Your task to perform on an android device: Open the phone app and click the voicemail tab. Image 0: 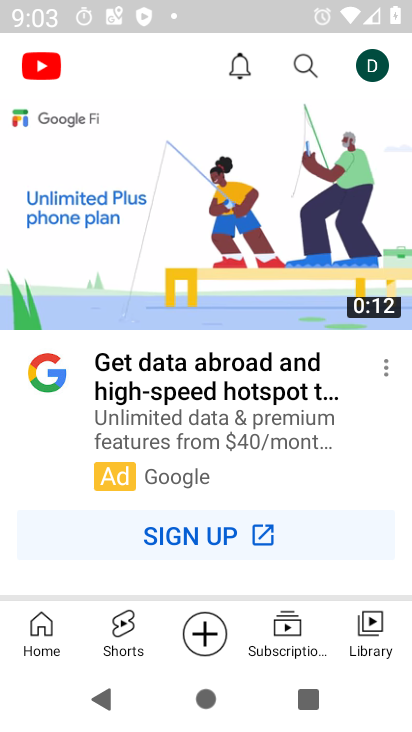
Step 0: press back button
Your task to perform on an android device: Open the phone app and click the voicemail tab. Image 1: 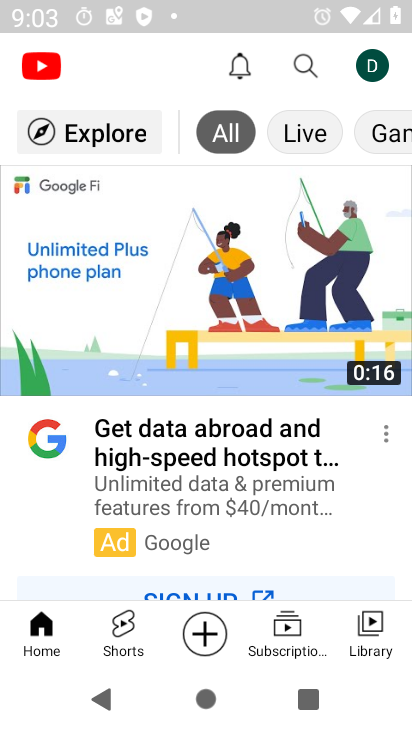
Step 1: press back button
Your task to perform on an android device: Open the phone app and click the voicemail tab. Image 2: 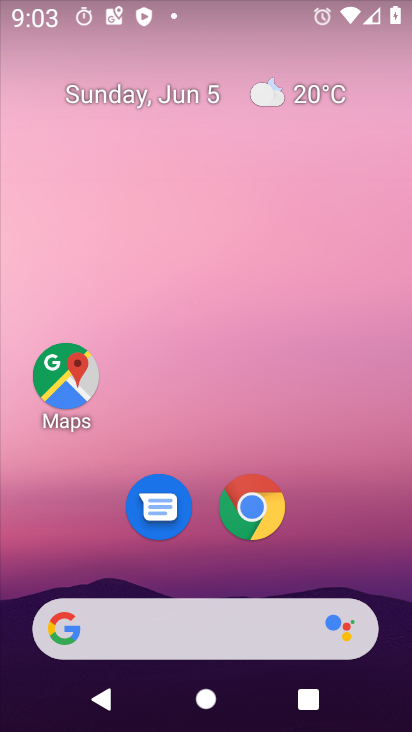
Step 2: drag from (361, 566) to (253, 1)
Your task to perform on an android device: Open the phone app and click the voicemail tab. Image 3: 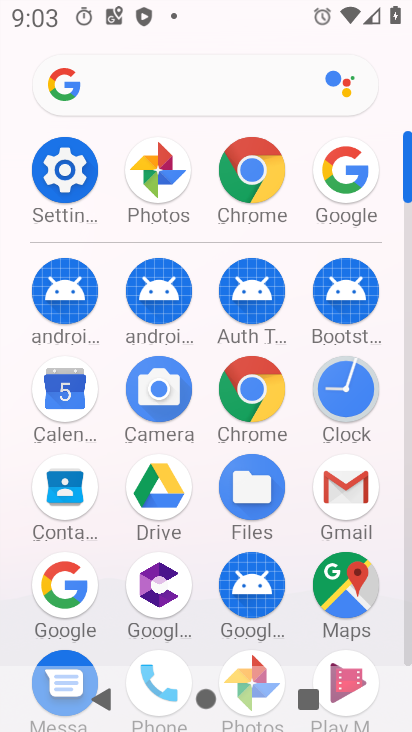
Step 3: drag from (19, 529) to (21, 256)
Your task to perform on an android device: Open the phone app and click the voicemail tab. Image 4: 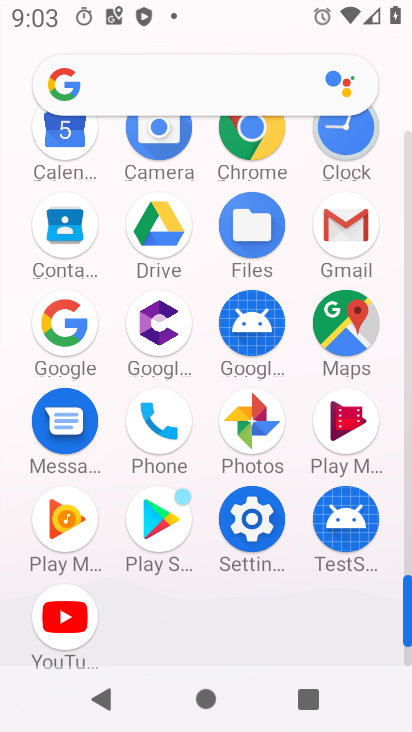
Step 4: click (155, 417)
Your task to perform on an android device: Open the phone app and click the voicemail tab. Image 5: 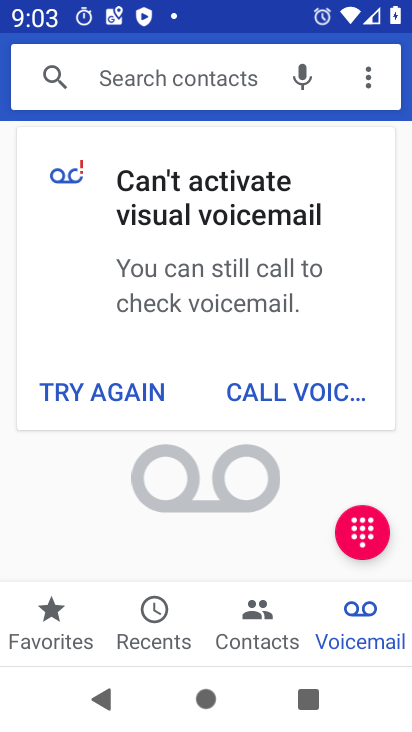
Step 5: task complete